Your task to perform on an android device: Clear the shopping cart on walmart. Add "bose soundsport free" to the cart on walmart Image 0: 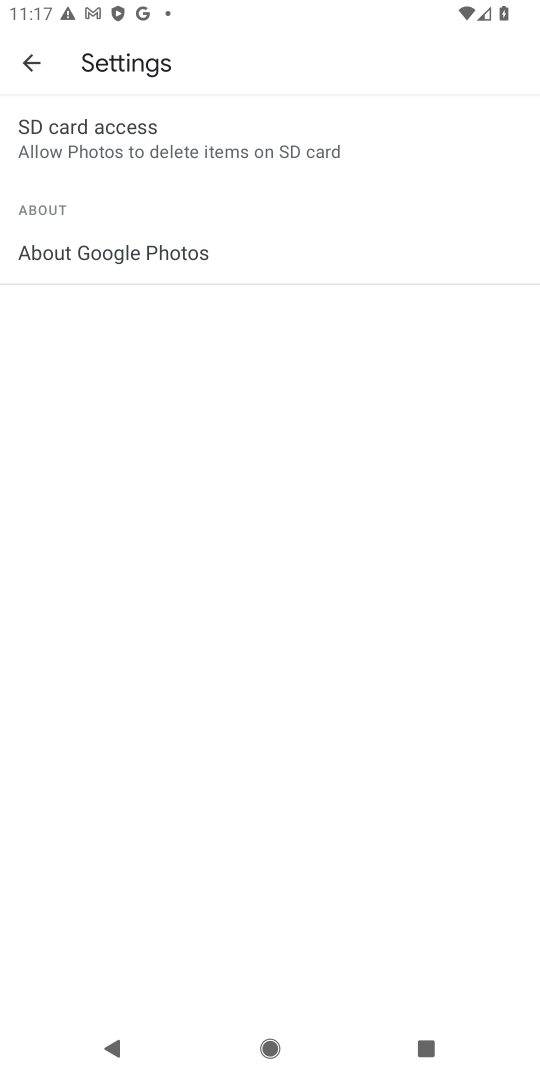
Step 0: press home button
Your task to perform on an android device: Clear the shopping cart on walmart. Add "bose soundsport free" to the cart on walmart Image 1: 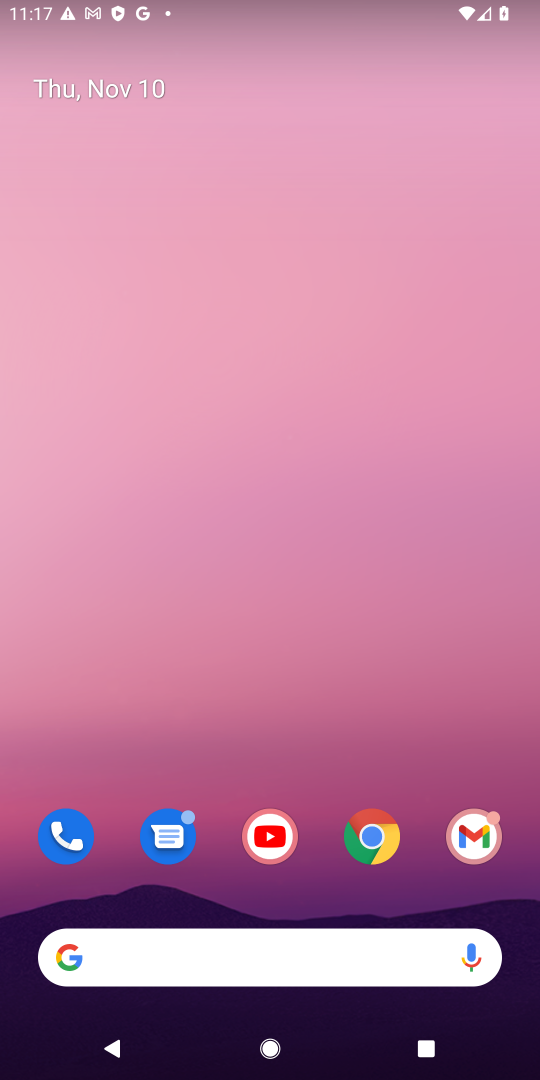
Step 1: drag from (419, 635) to (540, 392)
Your task to perform on an android device: Clear the shopping cart on walmart. Add "bose soundsport free" to the cart on walmart Image 2: 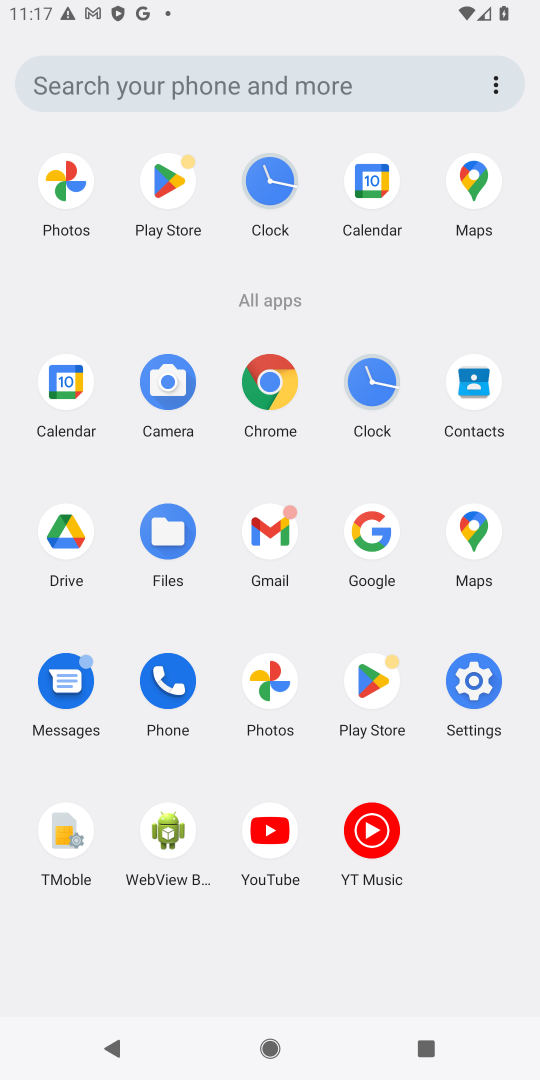
Step 2: click (272, 380)
Your task to perform on an android device: Clear the shopping cart on walmart. Add "bose soundsport free" to the cart on walmart Image 3: 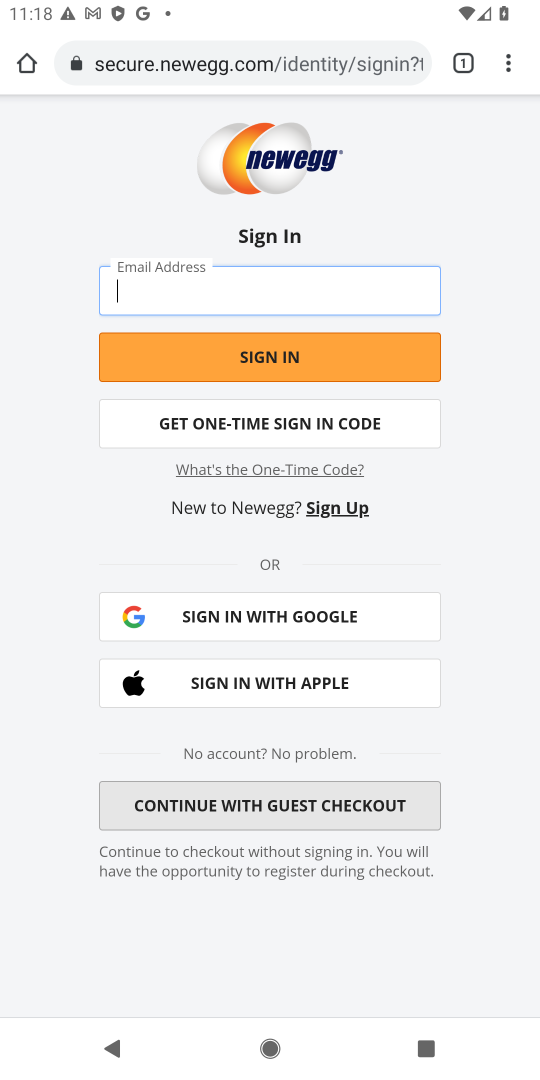
Step 3: click (284, 64)
Your task to perform on an android device: Clear the shopping cart on walmart. Add "bose soundsport free" to the cart on walmart Image 4: 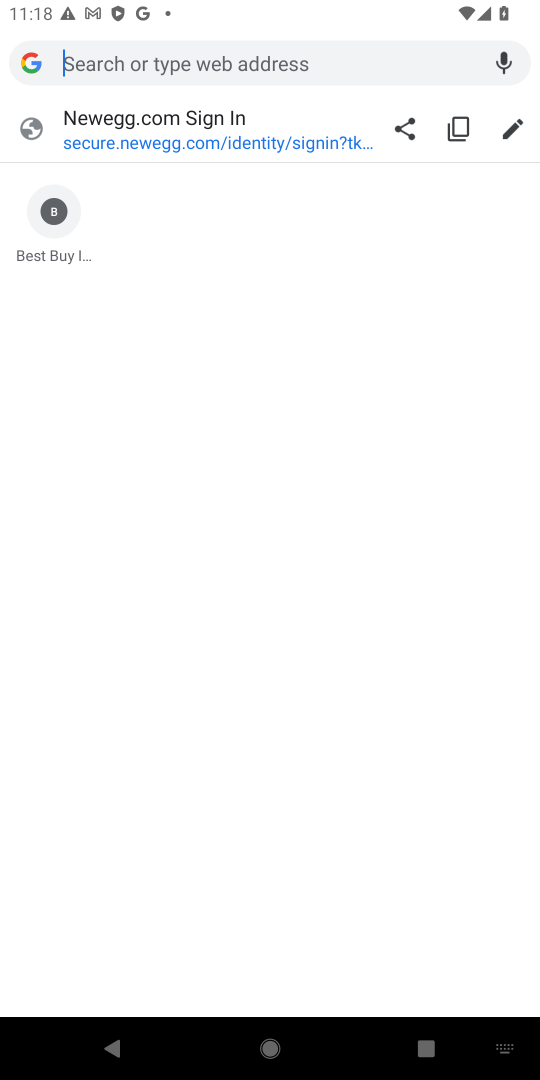
Step 4: type "walmart"
Your task to perform on an android device: Clear the shopping cart on walmart. Add "bose soundsport free" to the cart on walmart Image 5: 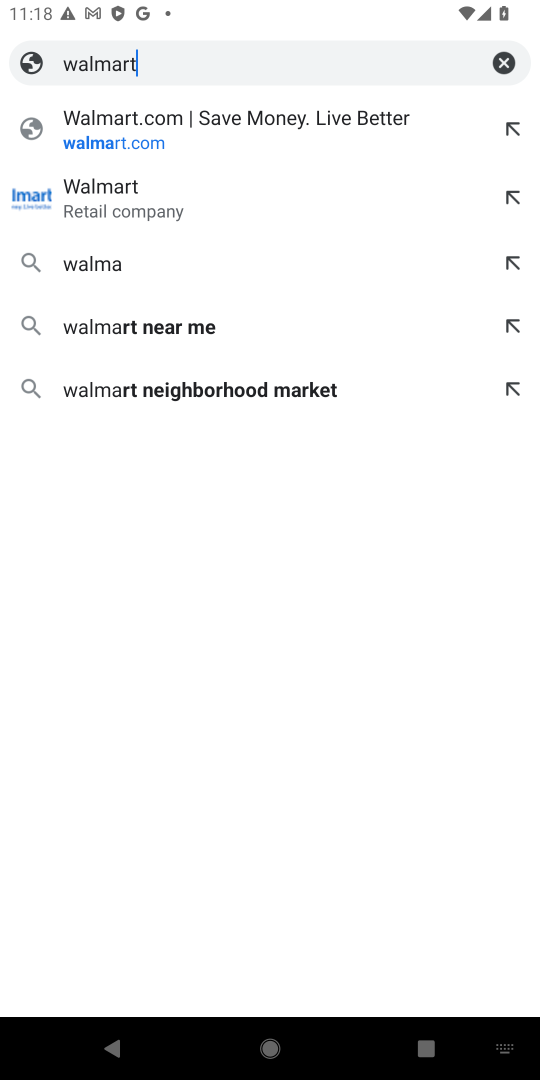
Step 5: press enter
Your task to perform on an android device: Clear the shopping cart on walmart. Add "bose soundsport free" to the cart on walmart Image 6: 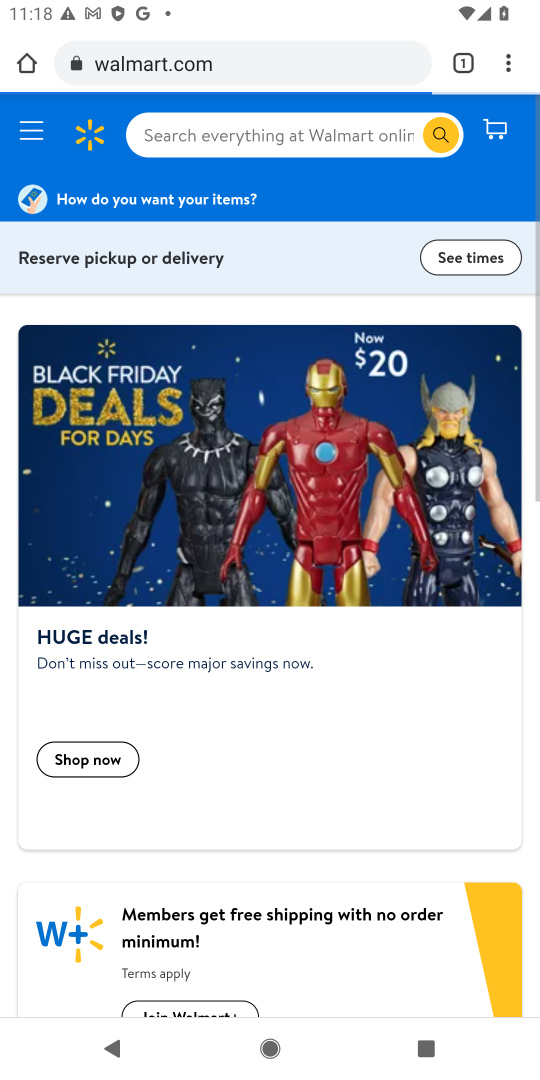
Step 6: press enter
Your task to perform on an android device: Clear the shopping cart on walmart. Add "bose soundsport free" to the cart on walmart Image 7: 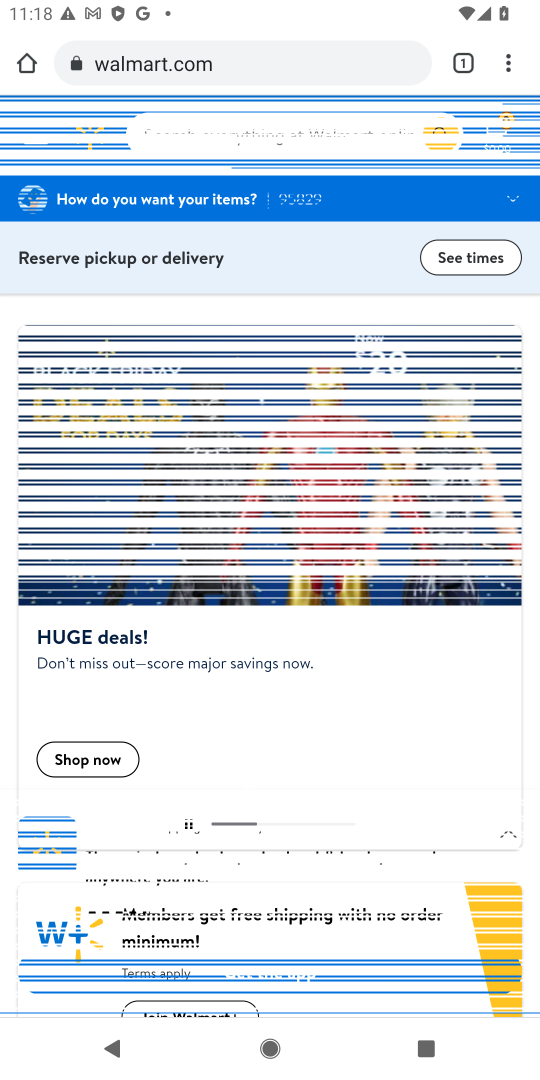
Step 7: press enter
Your task to perform on an android device: Clear the shopping cart on walmart. Add "bose soundsport free" to the cart on walmart Image 8: 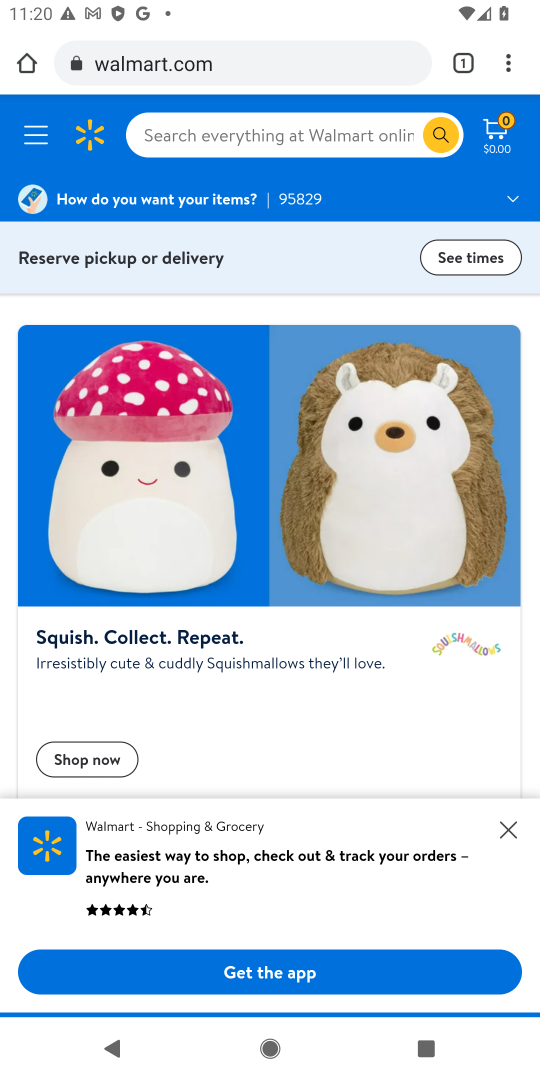
Step 8: click (367, 145)
Your task to perform on an android device: Clear the shopping cart on walmart. Add "bose soundsport free" to the cart on walmart Image 9: 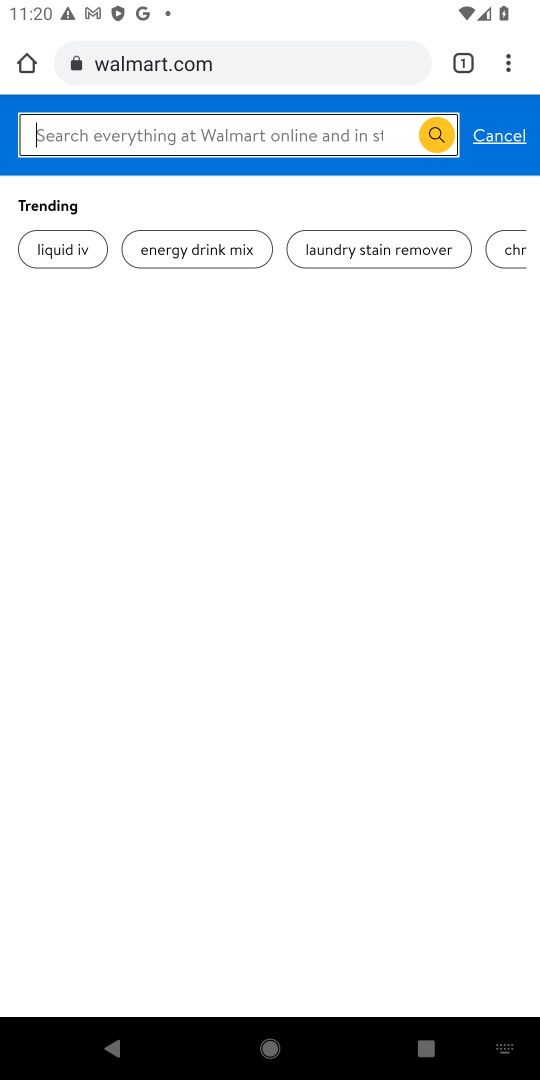
Step 9: type "bose soundsport free"
Your task to perform on an android device: Clear the shopping cart on walmart. Add "bose soundsport free" to the cart on walmart Image 10: 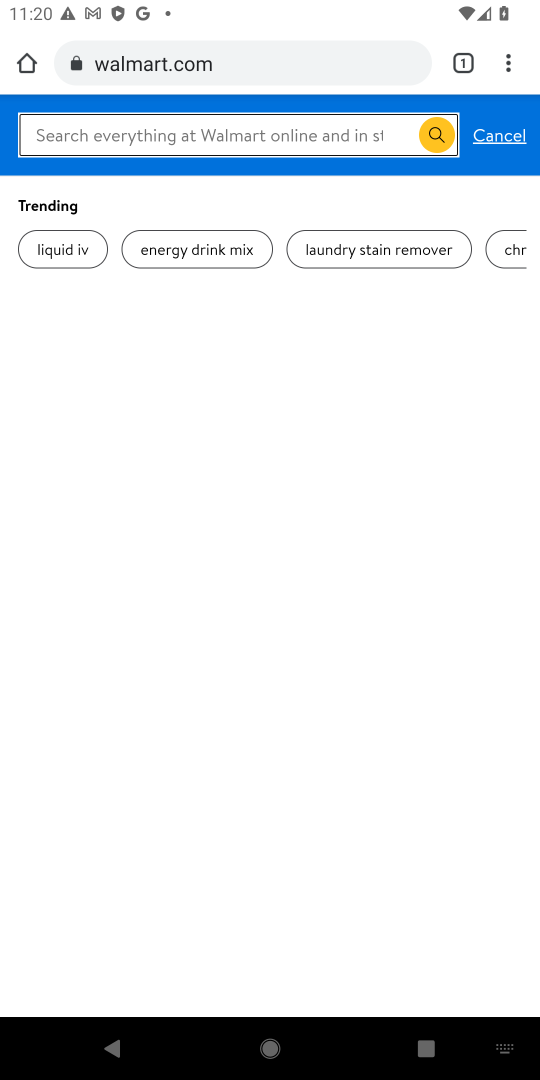
Step 10: press enter
Your task to perform on an android device: Clear the shopping cart on walmart. Add "bose soundsport free" to the cart on walmart Image 11: 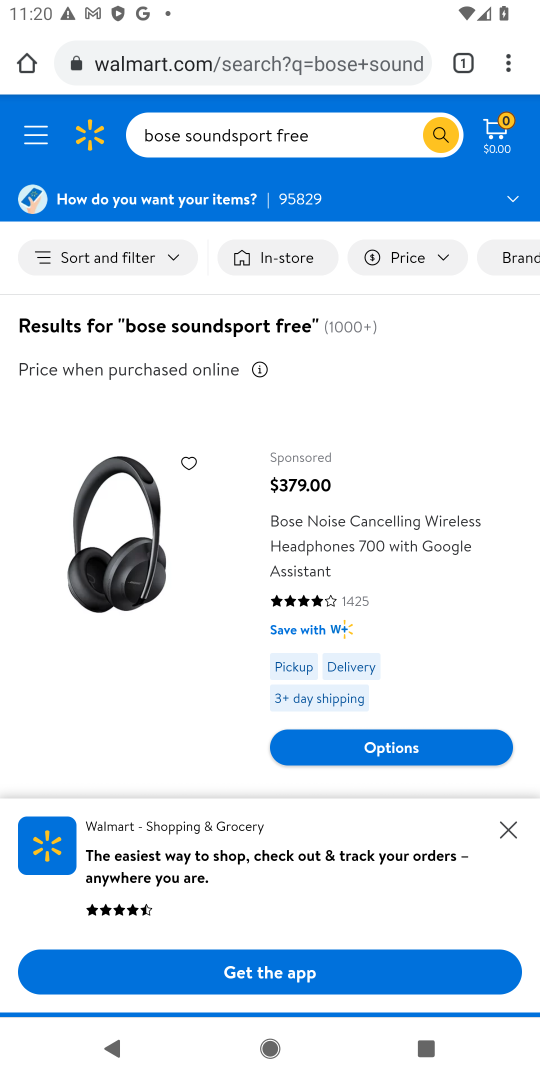
Step 11: click (392, 756)
Your task to perform on an android device: Clear the shopping cart on walmart. Add "bose soundsport free" to the cart on walmart Image 12: 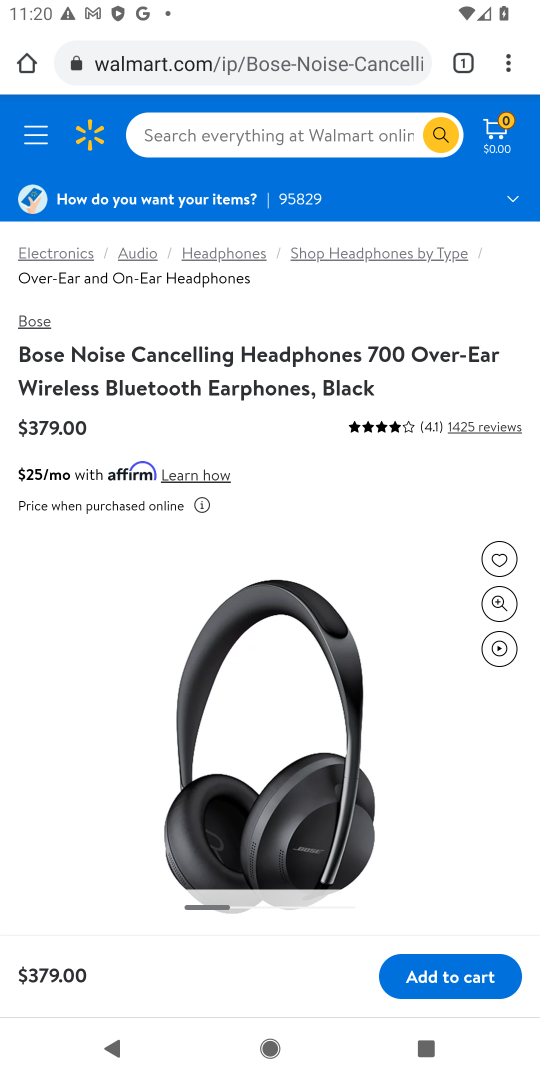
Step 12: click (486, 973)
Your task to perform on an android device: Clear the shopping cart on walmart. Add "bose soundsport free" to the cart on walmart Image 13: 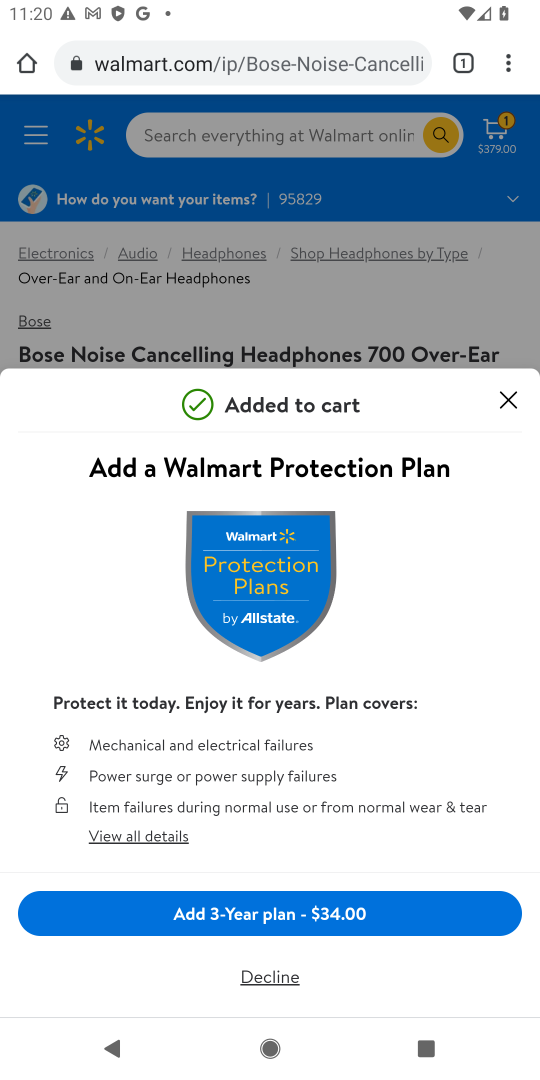
Step 13: task complete